Your task to perform on an android device: Go to wifi settings Image 0: 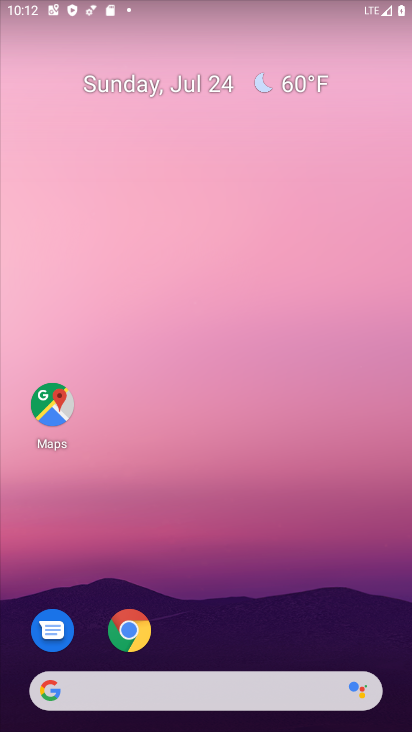
Step 0: drag from (207, 628) to (293, 3)
Your task to perform on an android device: Go to wifi settings Image 1: 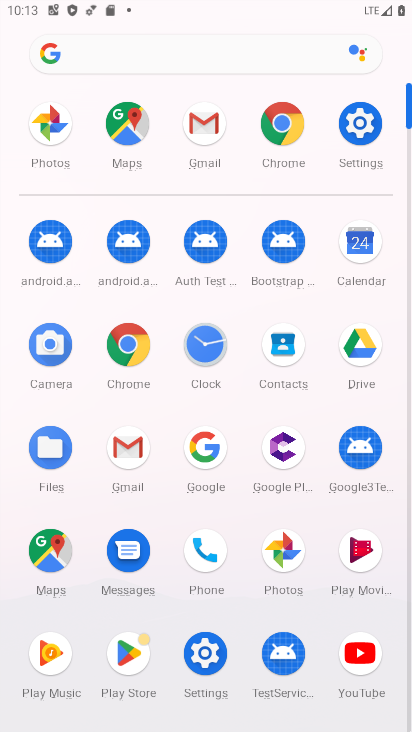
Step 1: click (359, 142)
Your task to perform on an android device: Go to wifi settings Image 2: 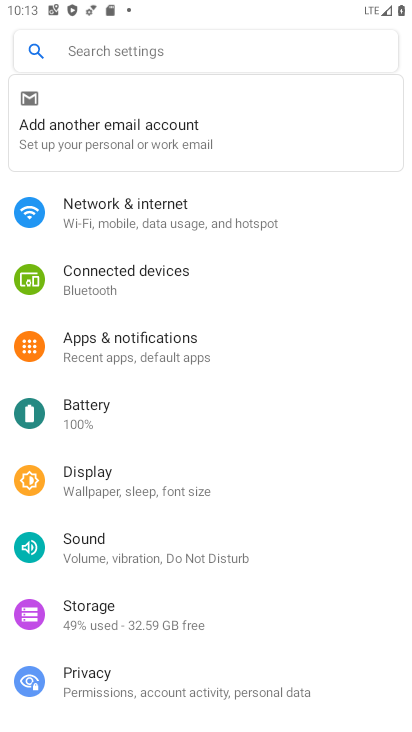
Step 2: click (177, 220)
Your task to perform on an android device: Go to wifi settings Image 3: 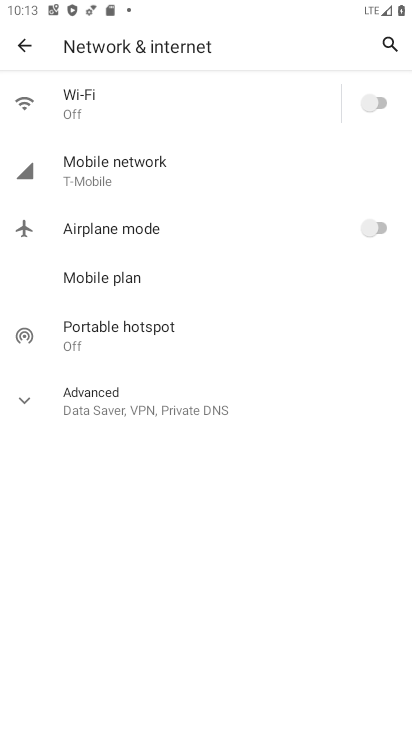
Step 3: click (90, 103)
Your task to perform on an android device: Go to wifi settings Image 4: 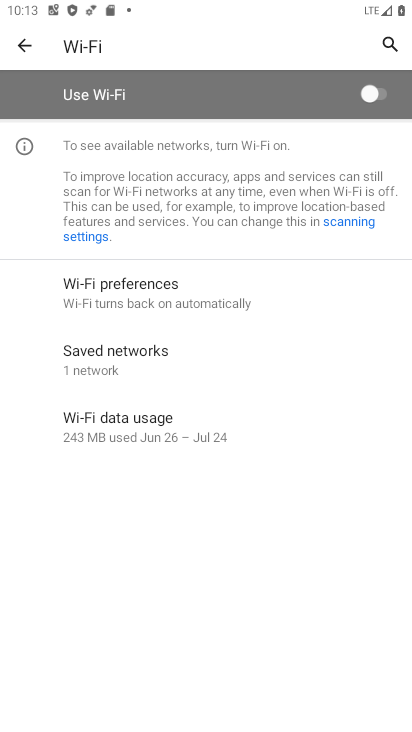
Step 4: task complete